Your task to perform on an android device: Open network settings Image 0: 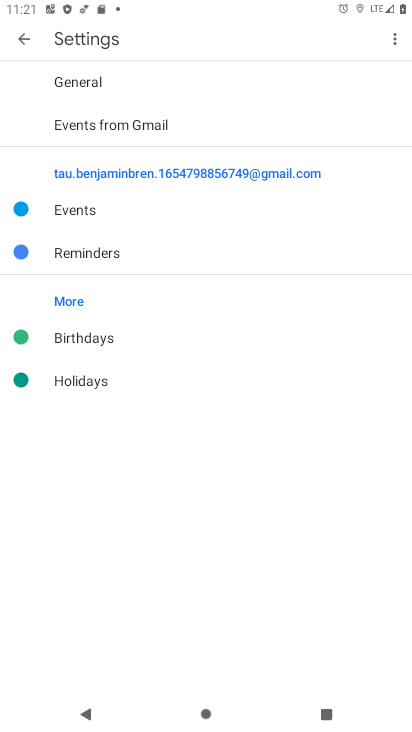
Step 0: press home button
Your task to perform on an android device: Open network settings Image 1: 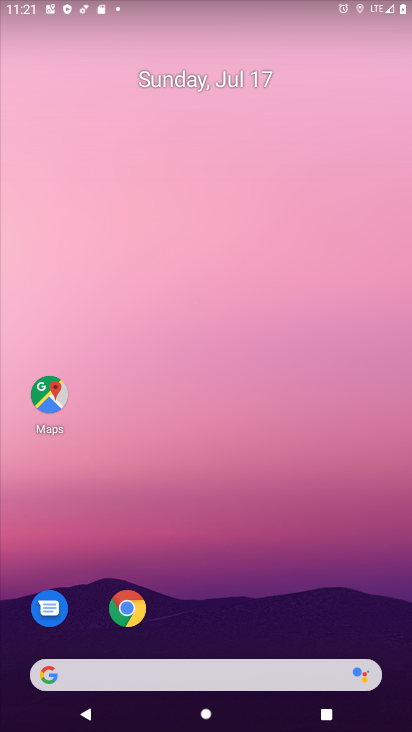
Step 1: drag from (193, 642) to (217, 179)
Your task to perform on an android device: Open network settings Image 2: 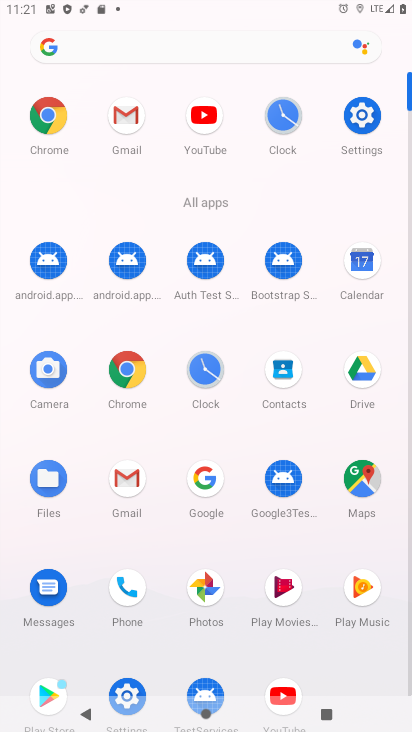
Step 2: click (364, 120)
Your task to perform on an android device: Open network settings Image 3: 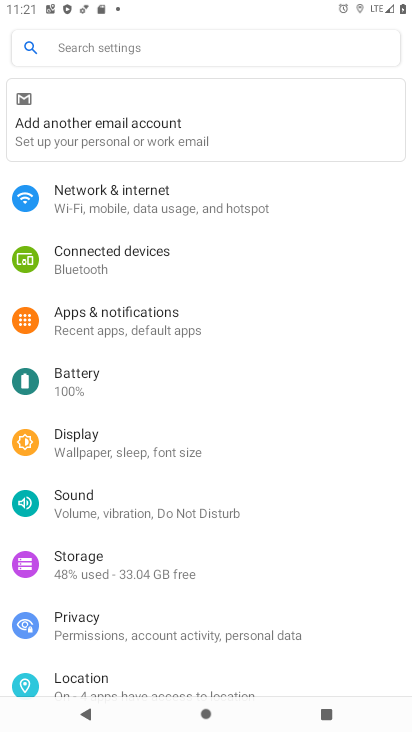
Step 3: click (135, 186)
Your task to perform on an android device: Open network settings Image 4: 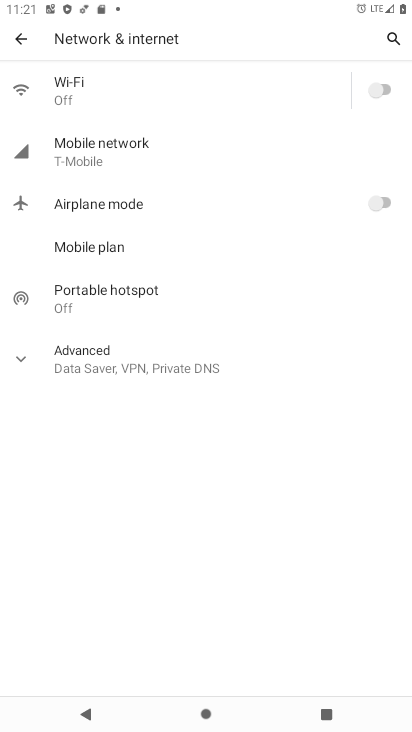
Step 4: click (114, 151)
Your task to perform on an android device: Open network settings Image 5: 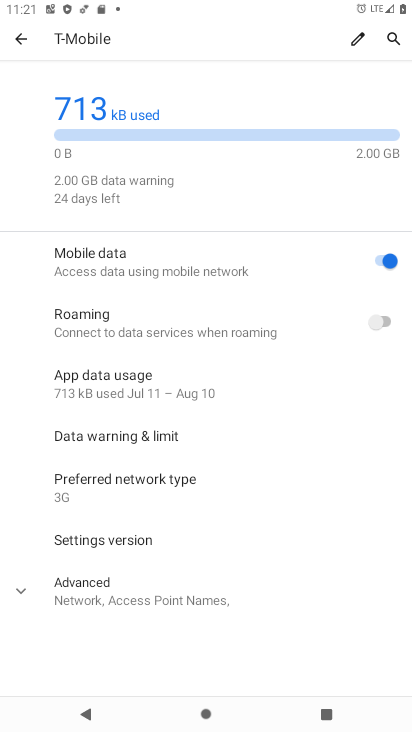
Step 5: task complete